Your task to perform on an android device: turn off picture-in-picture Image 0: 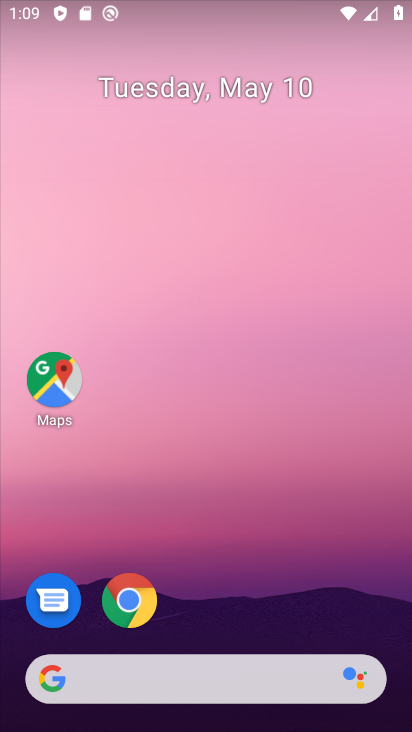
Step 0: drag from (281, 492) to (281, 148)
Your task to perform on an android device: turn off picture-in-picture Image 1: 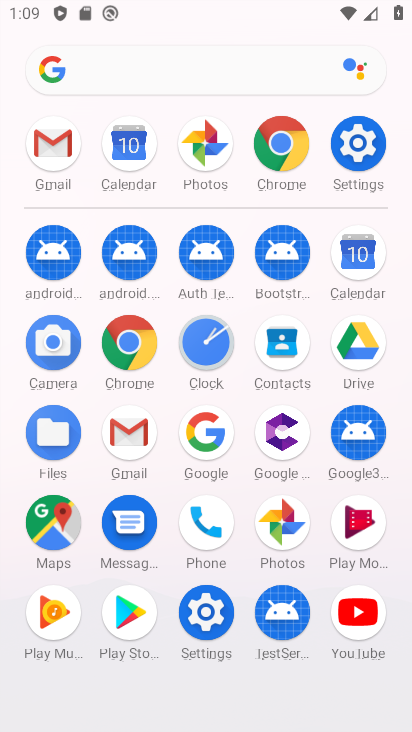
Step 1: click (361, 180)
Your task to perform on an android device: turn off picture-in-picture Image 2: 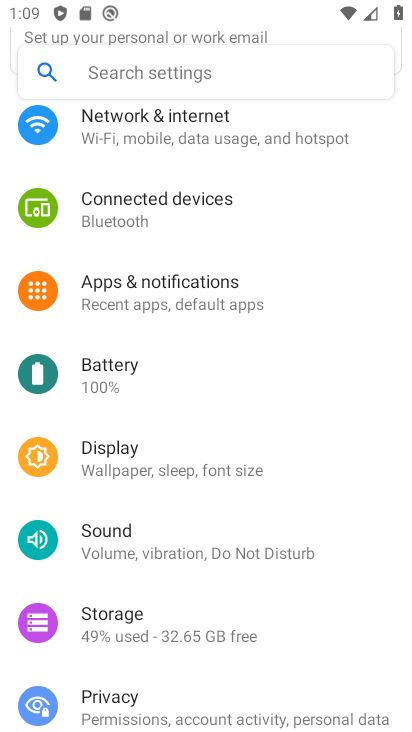
Step 2: drag from (230, 509) to (268, 214)
Your task to perform on an android device: turn off picture-in-picture Image 3: 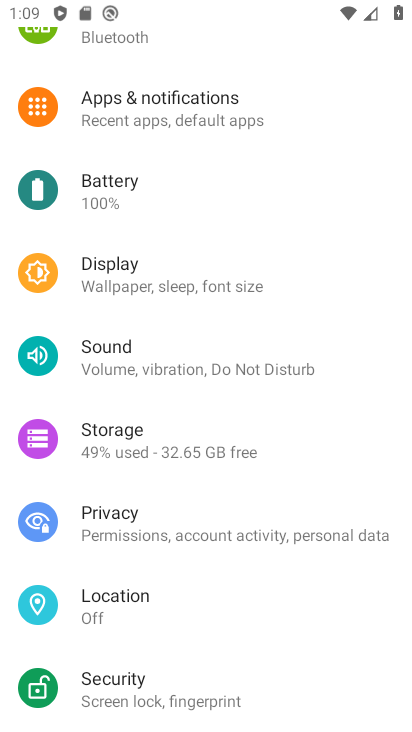
Step 3: drag from (234, 539) to (215, 115)
Your task to perform on an android device: turn off picture-in-picture Image 4: 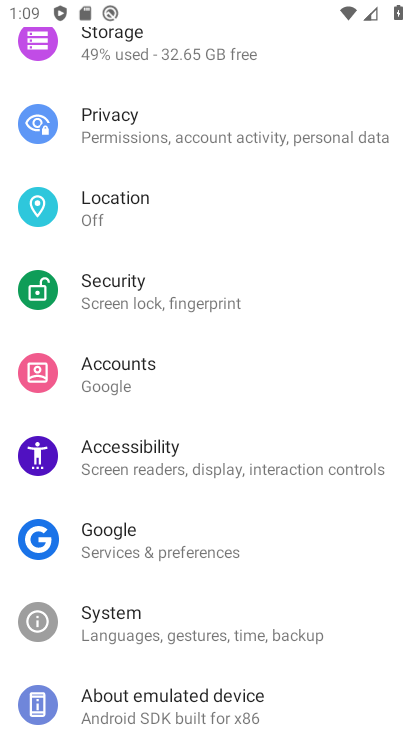
Step 4: drag from (230, 254) to (244, 561)
Your task to perform on an android device: turn off picture-in-picture Image 5: 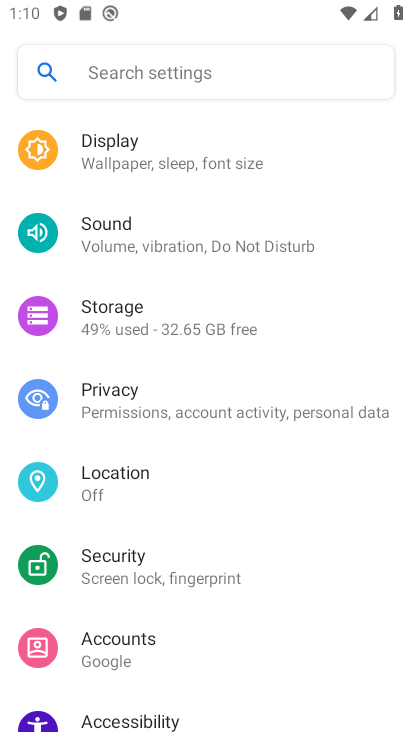
Step 5: drag from (249, 296) to (247, 487)
Your task to perform on an android device: turn off picture-in-picture Image 6: 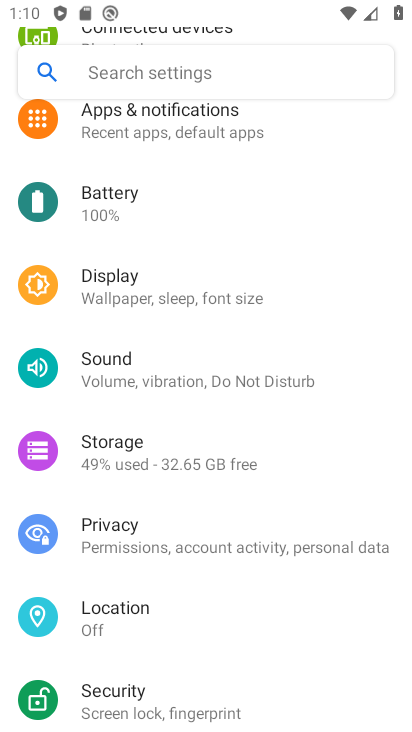
Step 6: click (185, 109)
Your task to perform on an android device: turn off picture-in-picture Image 7: 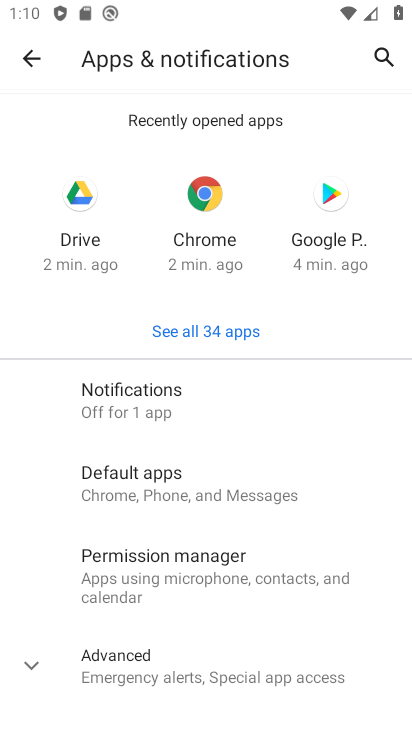
Step 7: drag from (253, 402) to (240, 56)
Your task to perform on an android device: turn off picture-in-picture Image 8: 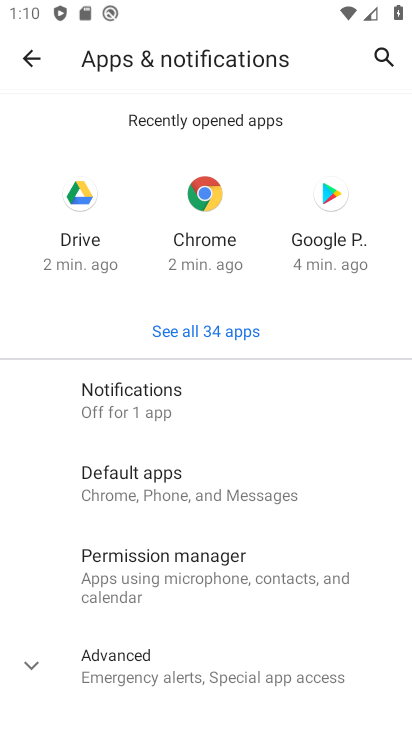
Step 8: click (218, 677)
Your task to perform on an android device: turn off picture-in-picture Image 9: 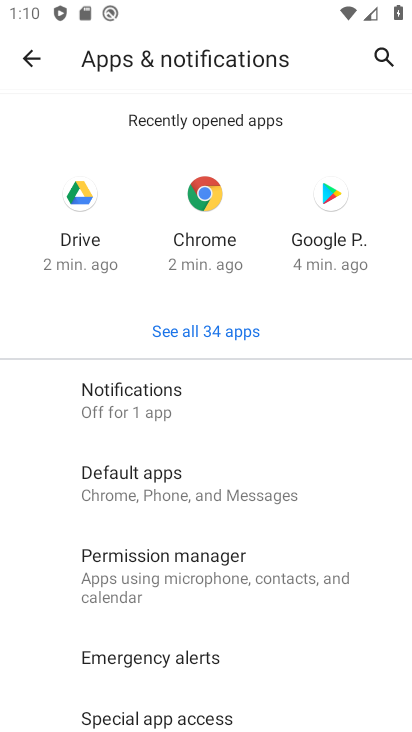
Step 9: drag from (219, 677) to (226, 108)
Your task to perform on an android device: turn off picture-in-picture Image 10: 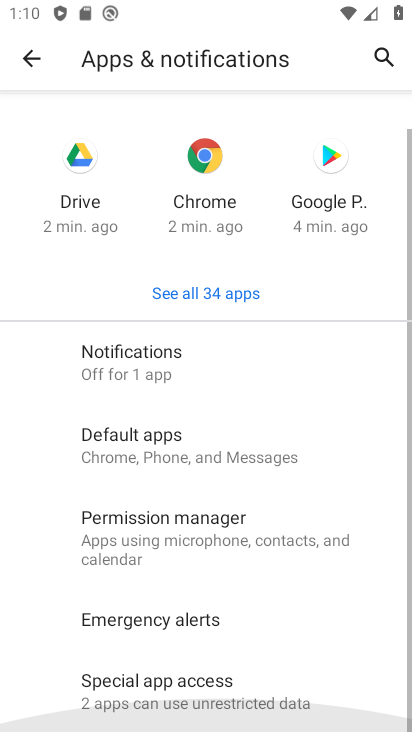
Step 10: click (247, 707)
Your task to perform on an android device: turn off picture-in-picture Image 11: 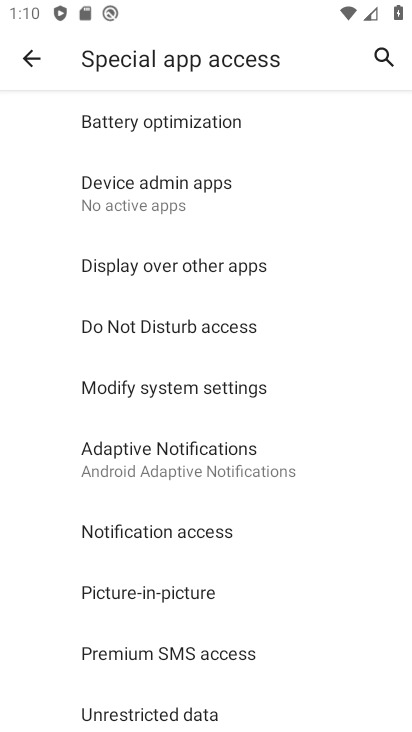
Step 11: click (239, 594)
Your task to perform on an android device: turn off picture-in-picture Image 12: 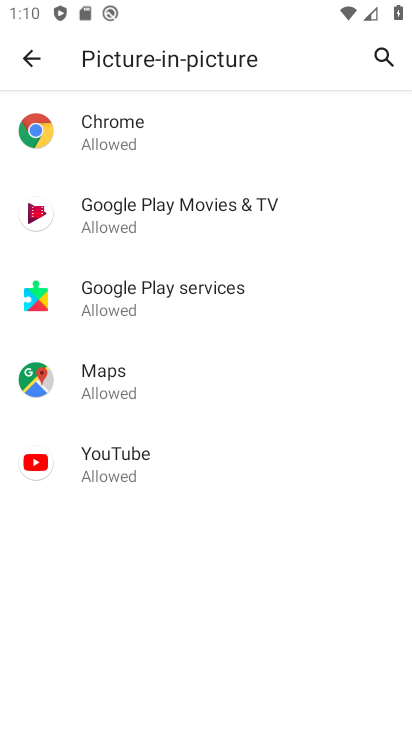
Step 12: click (215, 118)
Your task to perform on an android device: turn off picture-in-picture Image 13: 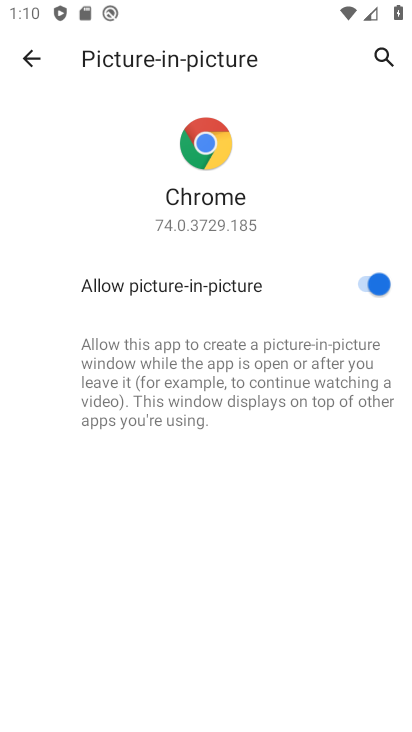
Step 13: click (354, 290)
Your task to perform on an android device: turn off picture-in-picture Image 14: 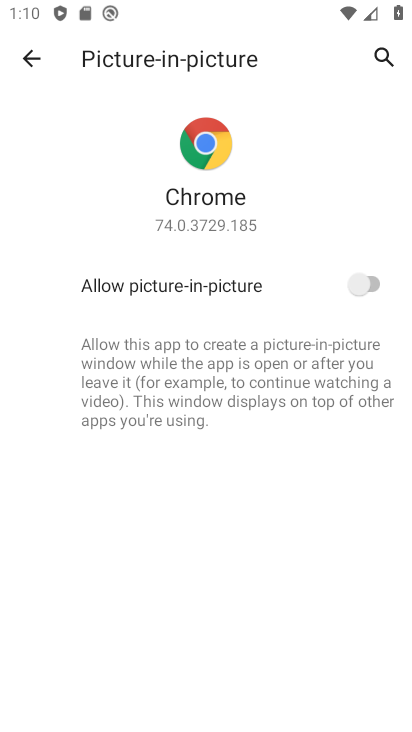
Step 14: task complete